Your task to perform on an android device: Open Reddit.com Image 0: 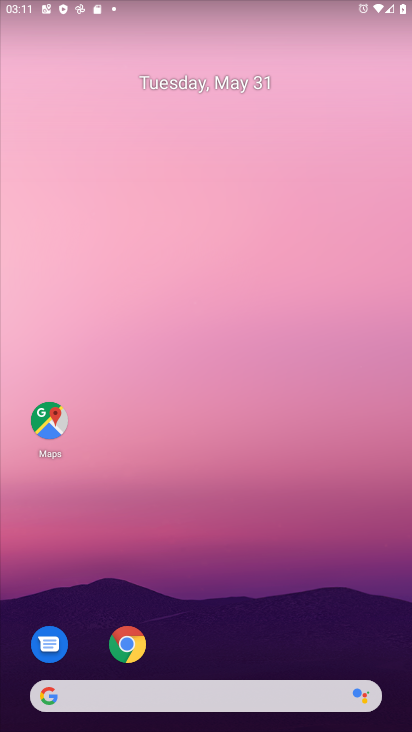
Step 0: click (129, 644)
Your task to perform on an android device: Open Reddit.com Image 1: 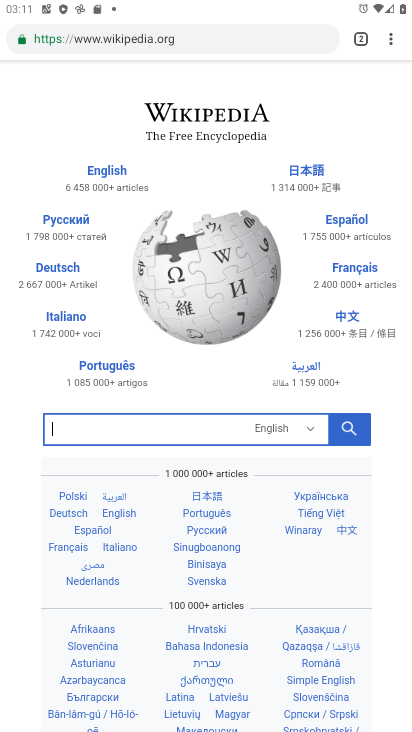
Step 1: click (161, 33)
Your task to perform on an android device: Open Reddit.com Image 2: 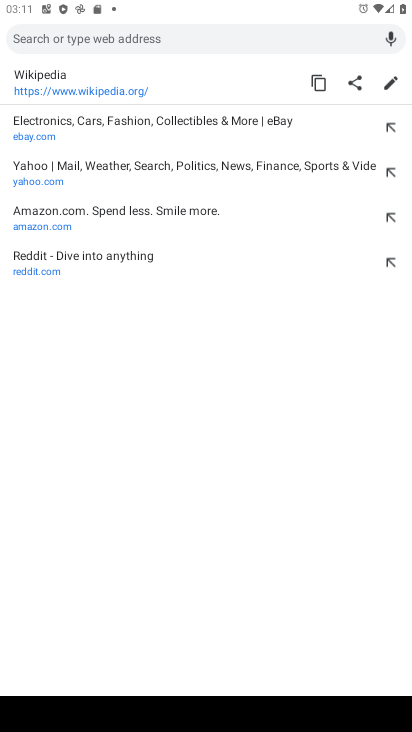
Step 2: click (27, 276)
Your task to perform on an android device: Open Reddit.com Image 3: 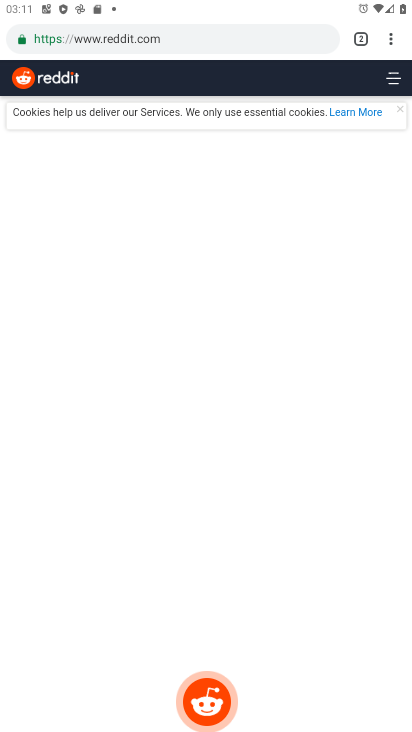
Step 3: task complete